Your task to perform on an android device: Empty the shopping cart on newegg. Search for "razer deathadder" on newegg, select the first entry, add it to the cart, then select checkout. Image 0: 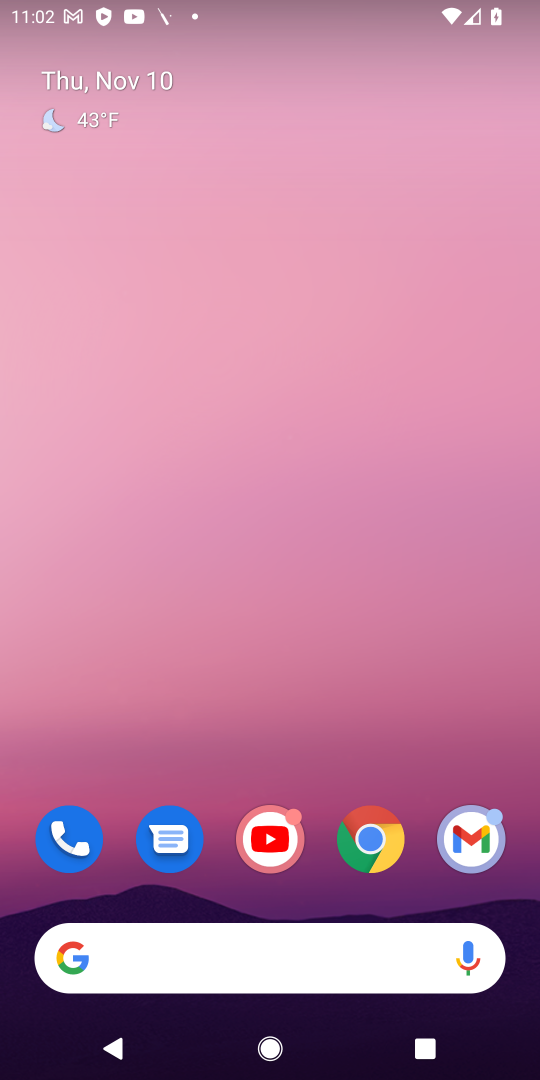
Step 0: click (362, 822)
Your task to perform on an android device: Empty the shopping cart on newegg. Search for "razer deathadder" on newegg, select the first entry, add it to the cart, then select checkout. Image 1: 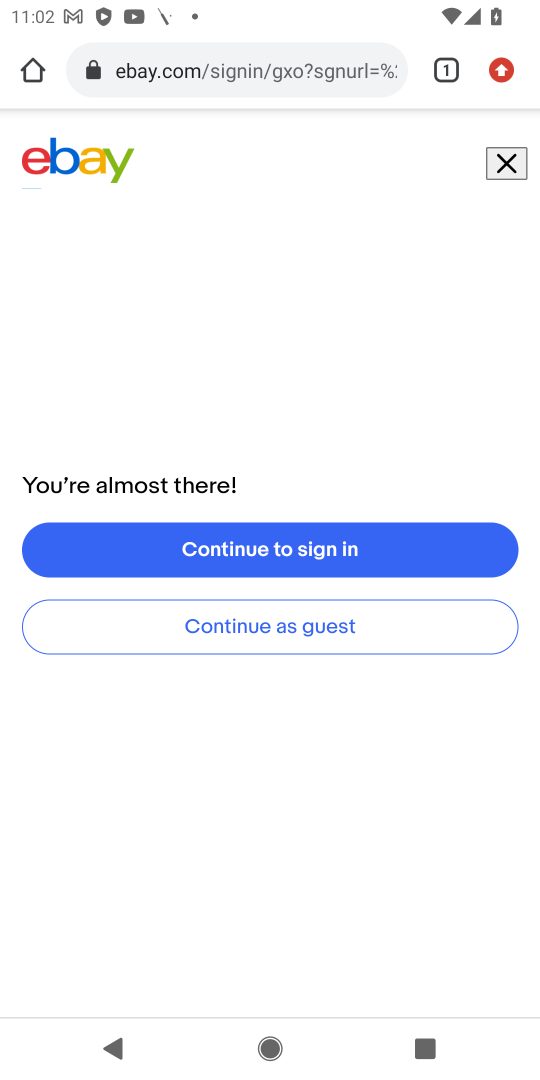
Step 1: click (299, 82)
Your task to perform on an android device: Empty the shopping cart on newegg. Search for "razer deathadder" on newegg, select the first entry, add it to the cart, then select checkout. Image 2: 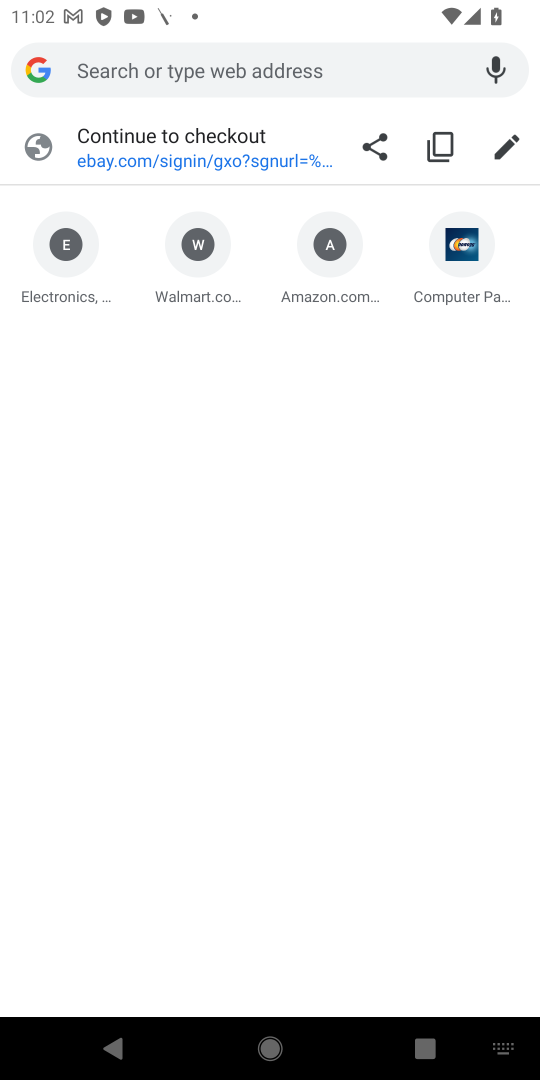
Step 2: type "newegg"
Your task to perform on an android device: Empty the shopping cart on newegg. Search for "razer deathadder" on newegg, select the first entry, add it to the cart, then select checkout. Image 3: 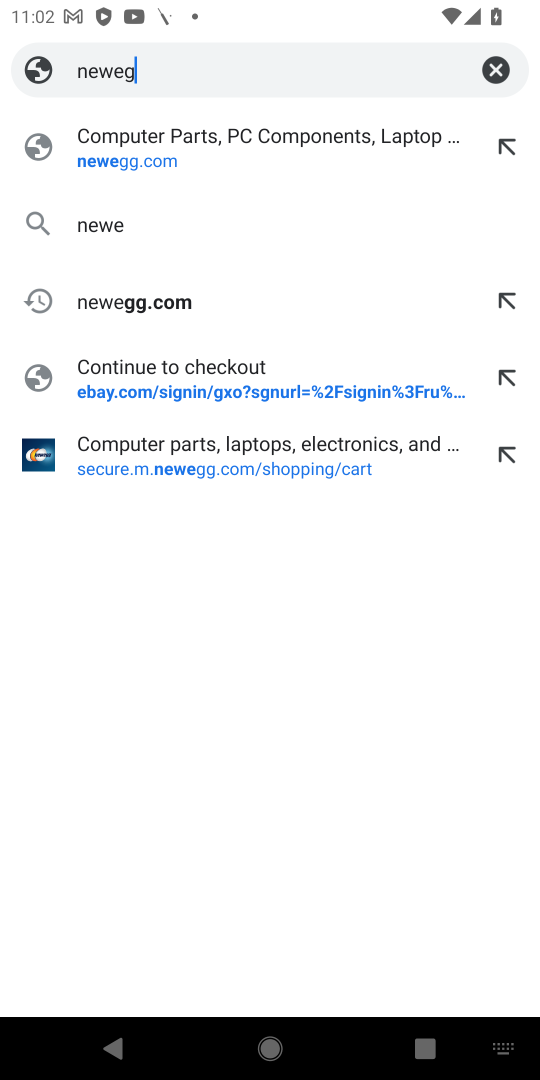
Step 3: press enter
Your task to perform on an android device: Empty the shopping cart on newegg. Search for "razer deathadder" on newegg, select the first entry, add it to the cart, then select checkout. Image 4: 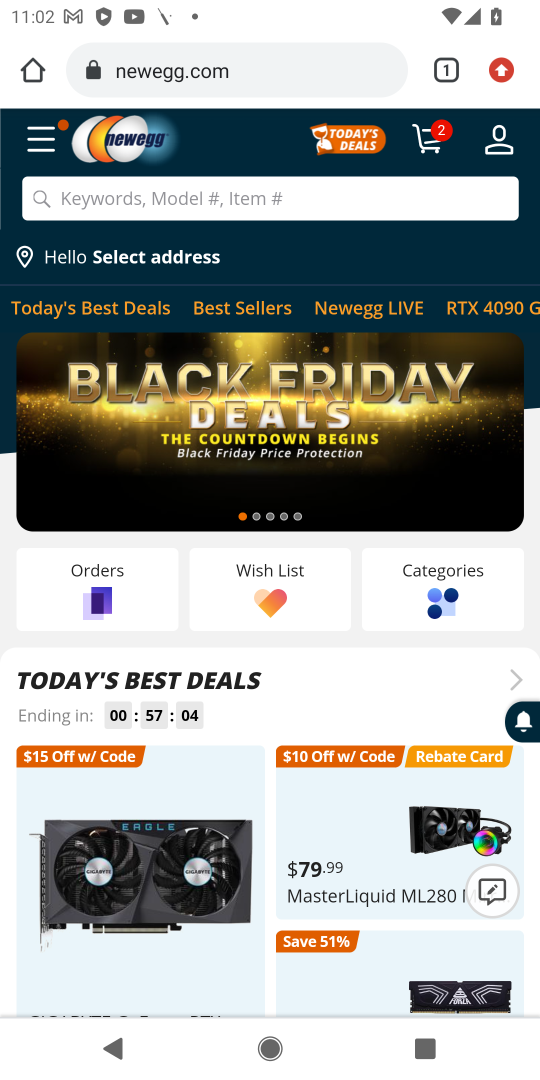
Step 4: click (428, 155)
Your task to perform on an android device: Empty the shopping cart on newegg. Search for "razer deathadder" on newegg, select the first entry, add it to the cart, then select checkout. Image 5: 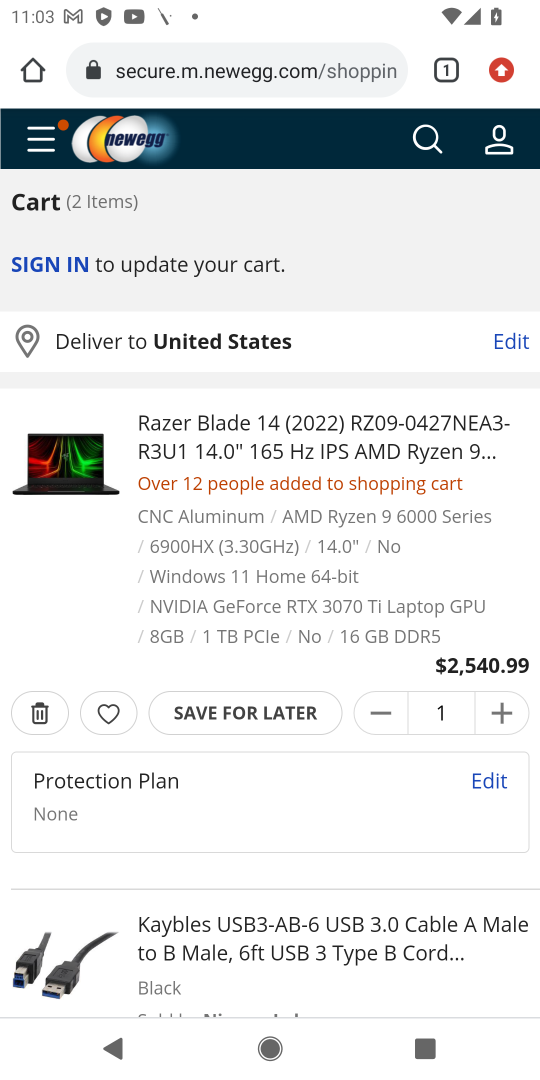
Step 5: click (39, 718)
Your task to perform on an android device: Empty the shopping cart on newegg. Search for "razer deathadder" on newegg, select the first entry, add it to the cart, then select checkout. Image 6: 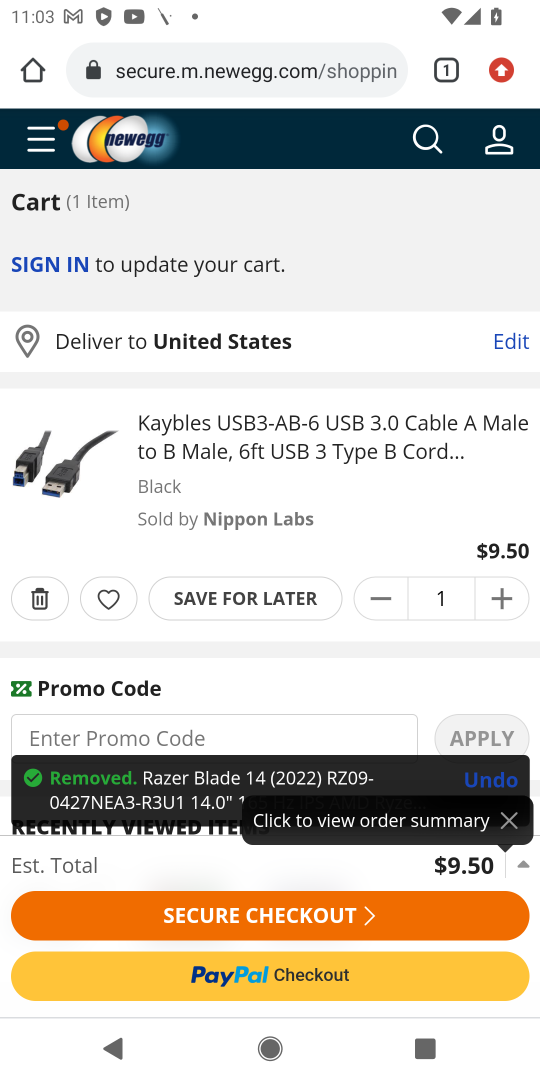
Step 6: click (42, 592)
Your task to perform on an android device: Empty the shopping cart on newegg. Search for "razer deathadder" on newegg, select the first entry, add it to the cart, then select checkout. Image 7: 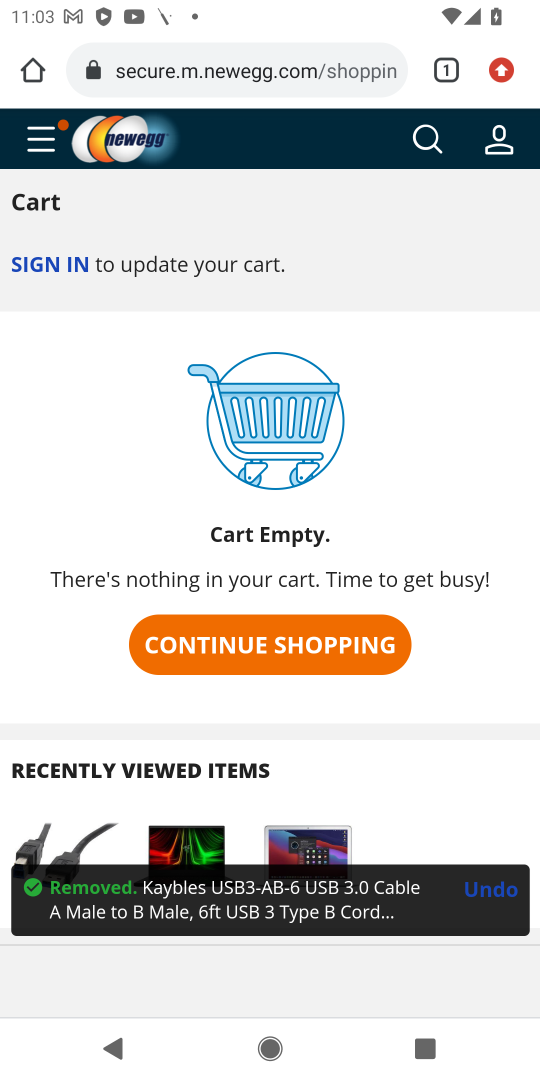
Step 7: click (414, 136)
Your task to perform on an android device: Empty the shopping cart on newegg. Search for "razer deathadder" on newegg, select the first entry, add it to the cart, then select checkout. Image 8: 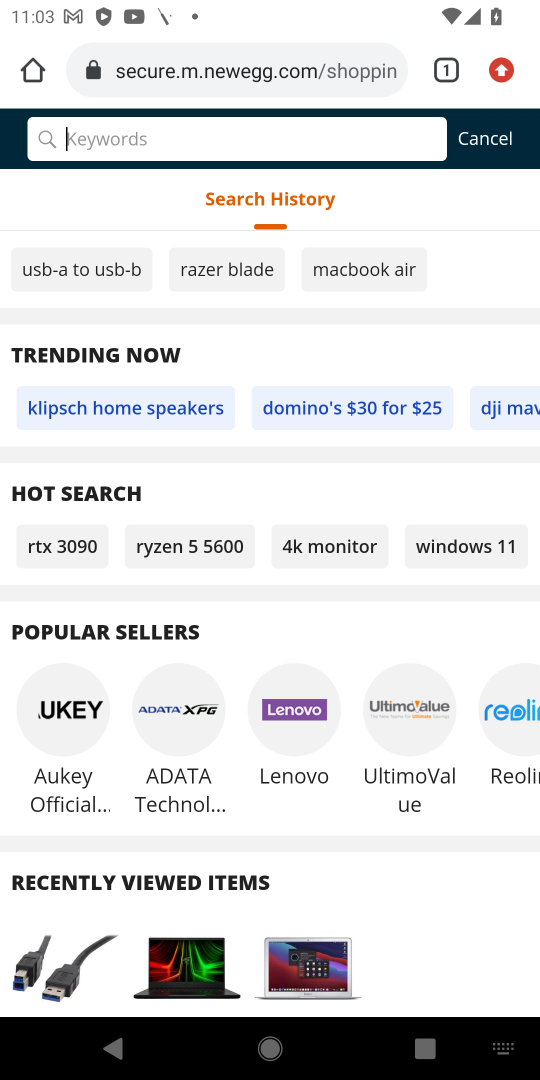
Step 8: type "razer deathadder"
Your task to perform on an android device: Empty the shopping cart on newegg. Search for "razer deathadder" on newegg, select the first entry, add it to the cart, then select checkout. Image 9: 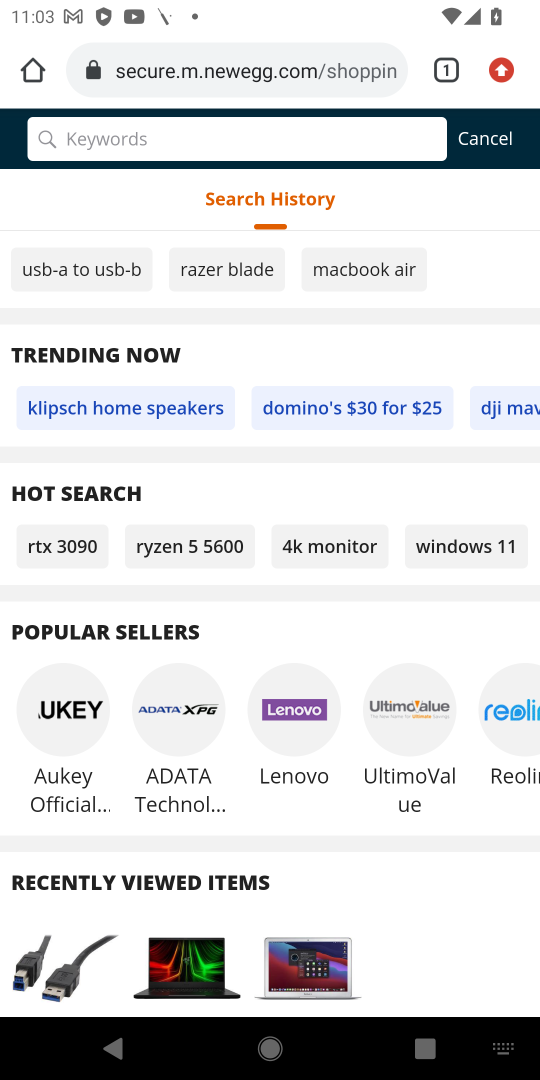
Step 9: press enter
Your task to perform on an android device: Empty the shopping cart on newegg. Search for "razer deathadder" on newegg, select the first entry, add it to the cart, then select checkout. Image 10: 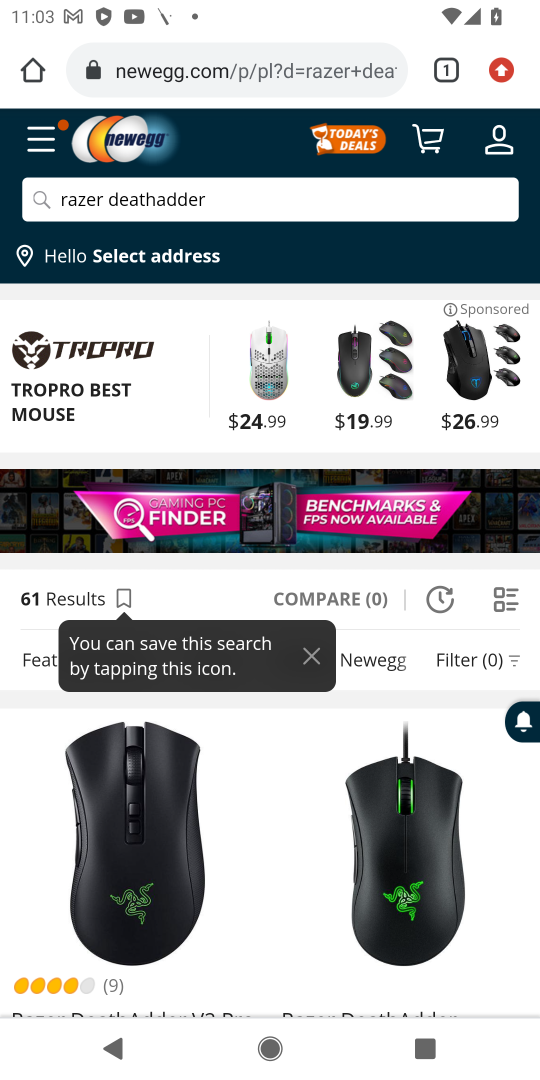
Step 10: drag from (275, 654) to (298, 473)
Your task to perform on an android device: Empty the shopping cart on newegg. Search for "razer deathadder" on newegg, select the first entry, add it to the cart, then select checkout. Image 11: 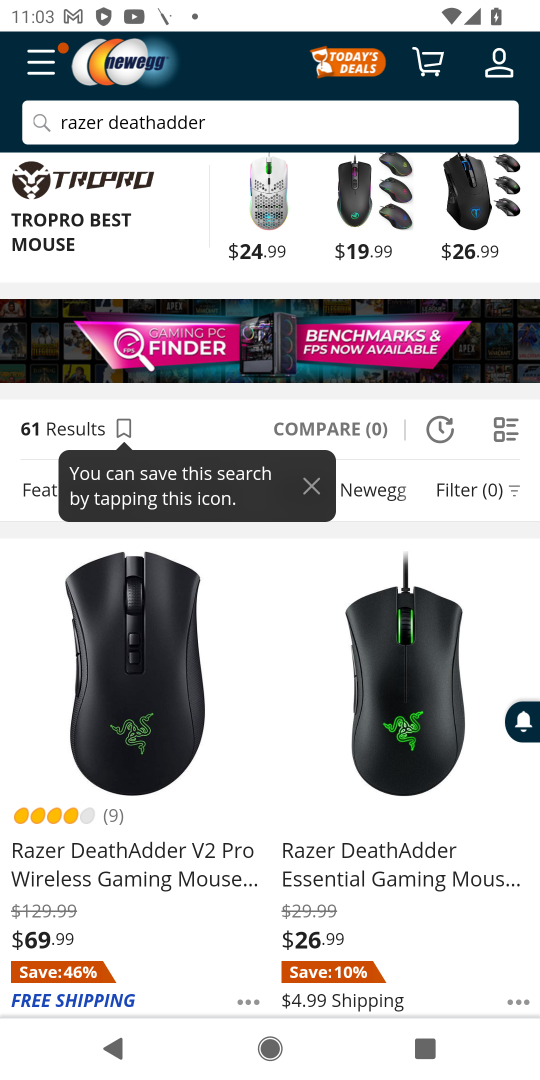
Step 11: click (365, 653)
Your task to perform on an android device: Empty the shopping cart on newegg. Search for "razer deathadder" on newegg, select the first entry, add it to the cart, then select checkout. Image 12: 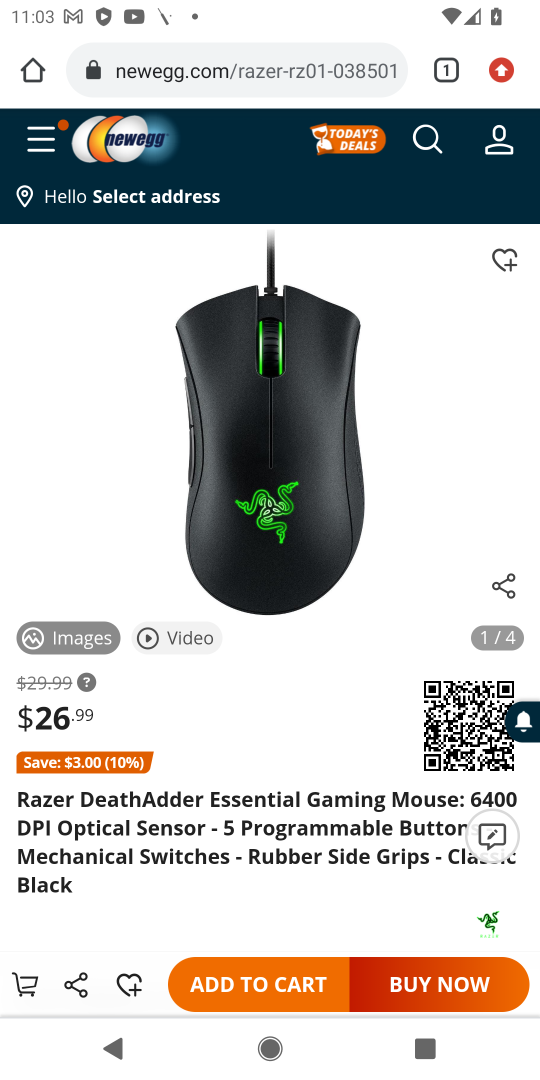
Step 12: click (264, 983)
Your task to perform on an android device: Empty the shopping cart on newegg. Search for "razer deathadder" on newegg, select the first entry, add it to the cart, then select checkout. Image 13: 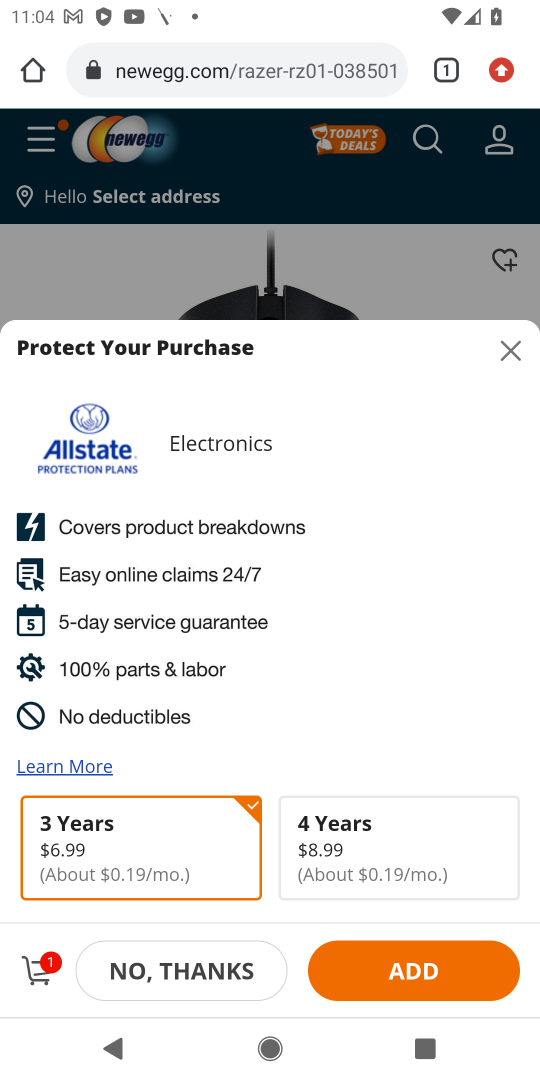
Step 13: click (512, 344)
Your task to perform on an android device: Empty the shopping cart on newegg. Search for "razer deathadder" on newegg, select the first entry, add it to the cart, then select checkout. Image 14: 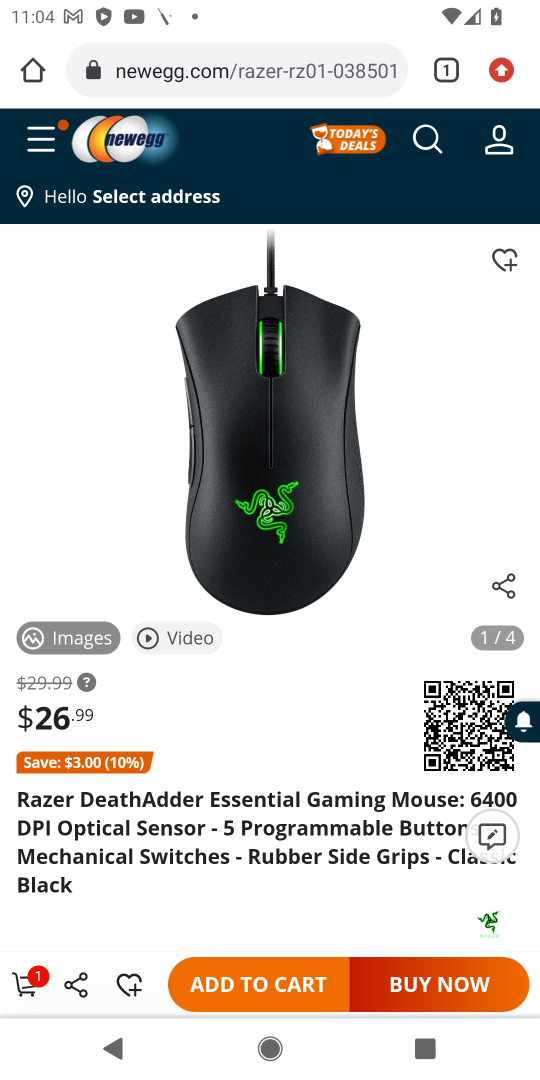
Step 14: click (32, 989)
Your task to perform on an android device: Empty the shopping cart on newegg. Search for "razer deathadder" on newegg, select the first entry, add it to the cart, then select checkout. Image 15: 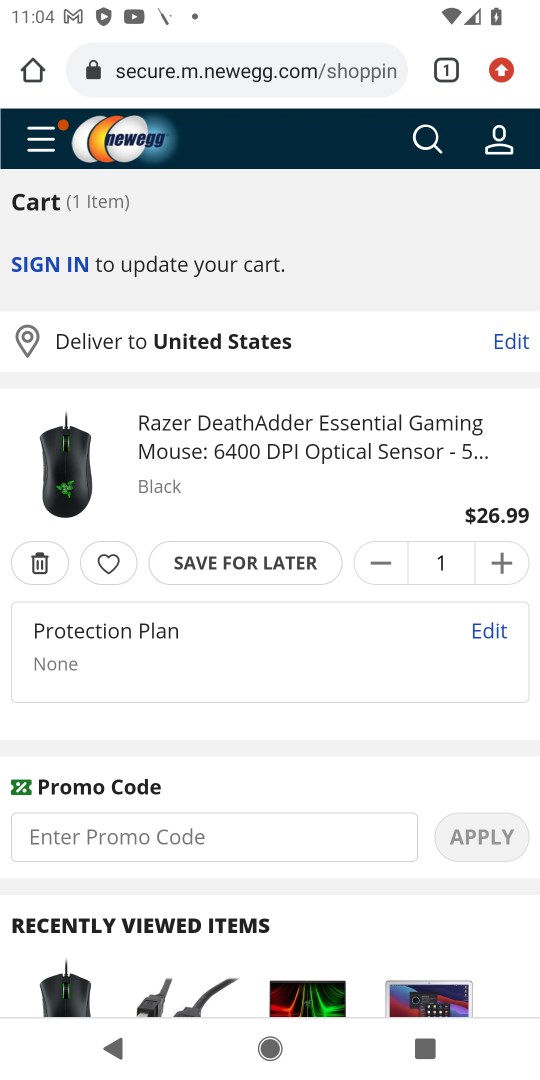
Step 15: drag from (355, 775) to (374, 232)
Your task to perform on an android device: Empty the shopping cart on newegg. Search for "razer deathadder" on newegg, select the first entry, add it to the cart, then select checkout. Image 16: 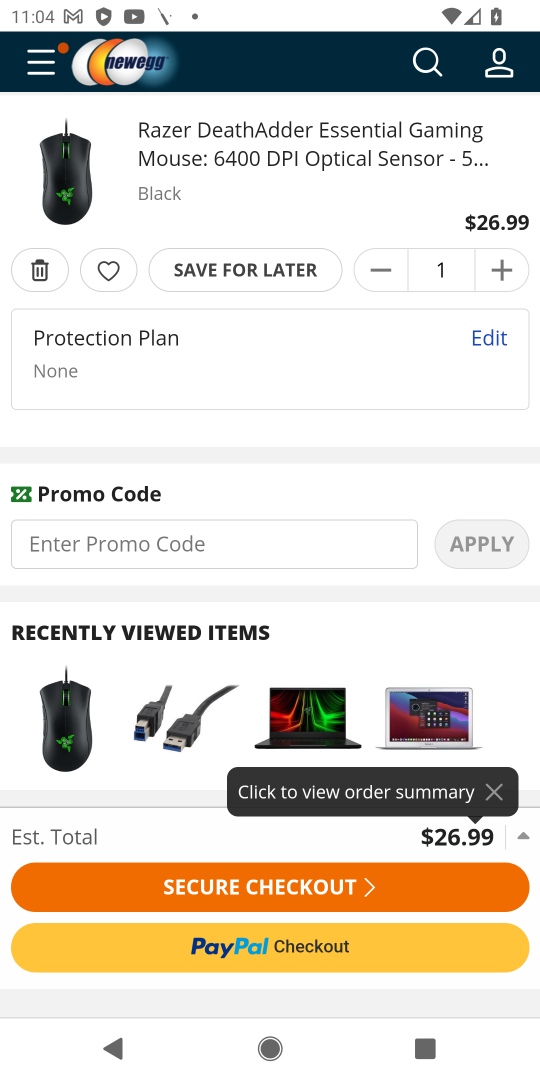
Step 16: click (310, 884)
Your task to perform on an android device: Empty the shopping cart on newegg. Search for "razer deathadder" on newegg, select the first entry, add it to the cart, then select checkout. Image 17: 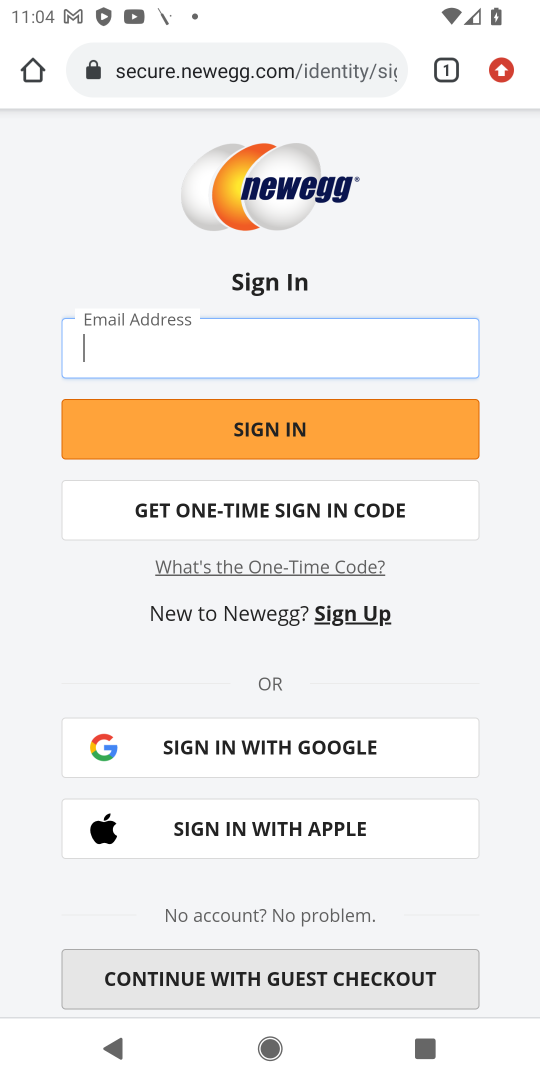
Step 17: task complete